Your task to perform on an android device: turn pop-ups on in chrome Image 0: 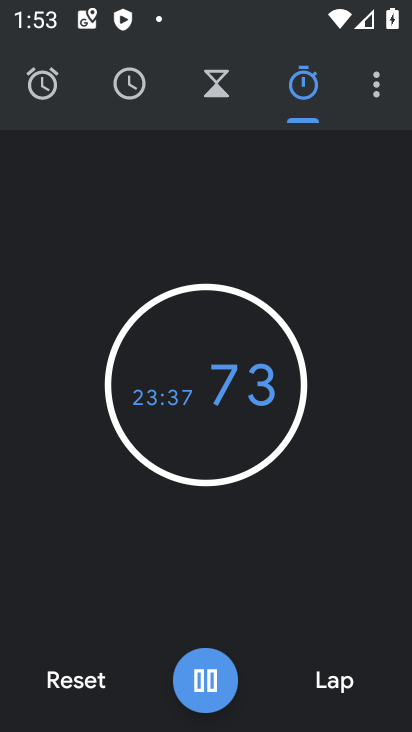
Step 0: drag from (205, 716) to (212, 260)
Your task to perform on an android device: turn pop-ups on in chrome Image 1: 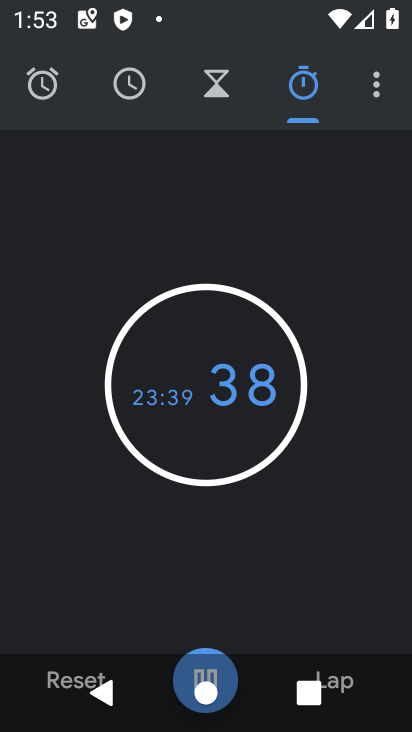
Step 1: press home button
Your task to perform on an android device: turn pop-ups on in chrome Image 2: 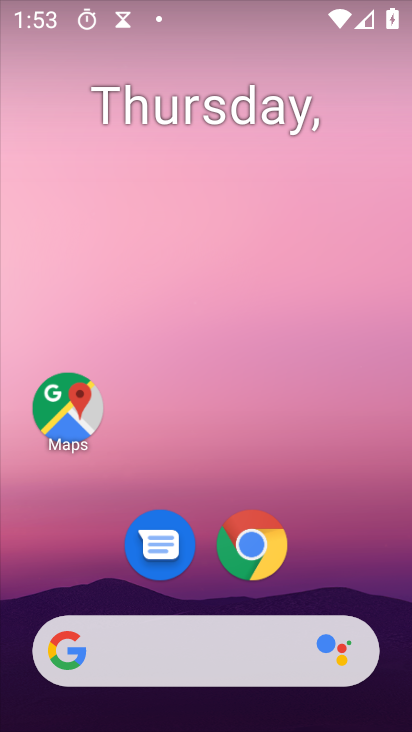
Step 2: drag from (226, 542) to (226, 206)
Your task to perform on an android device: turn pop-ups on in chrome Image 3: 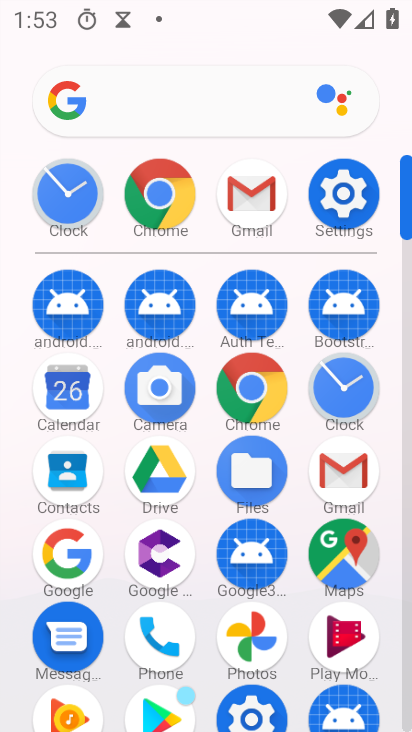
Step 3: click (248, 385)
Your task to perform on an android device: turn pop-ups on in chrome Image 4: 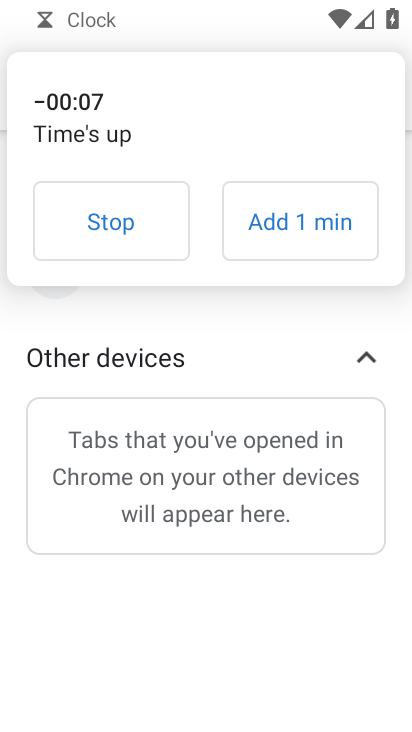
Step 4: click (124, 218)
Your task to perform on an android device: turn pop-ups on in chrome Image 5: 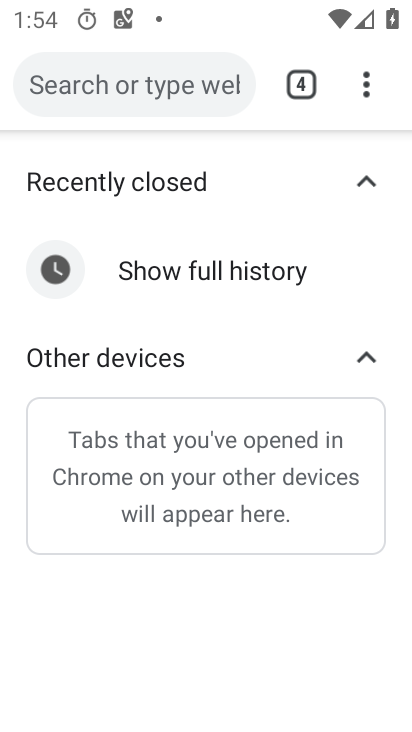
Step 5: click (370, 93)
Your task to perform on an android device: turn pop-ups on in chrome Image 6: 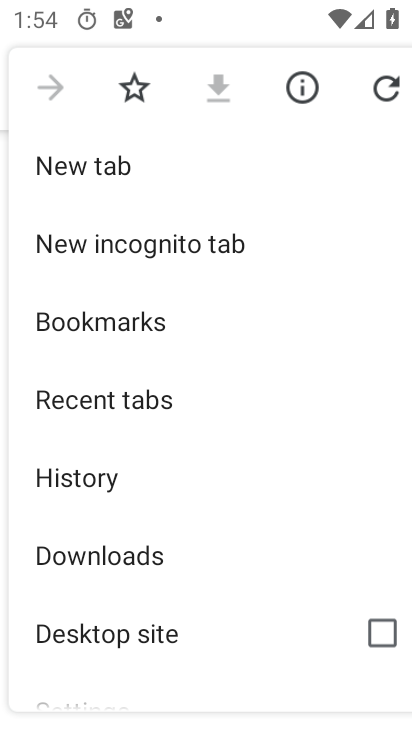
Step 6: drag from (139, 608) to (141, 183)
Your task to perform on an android device: turn pop-ups on in chrome Image 7: 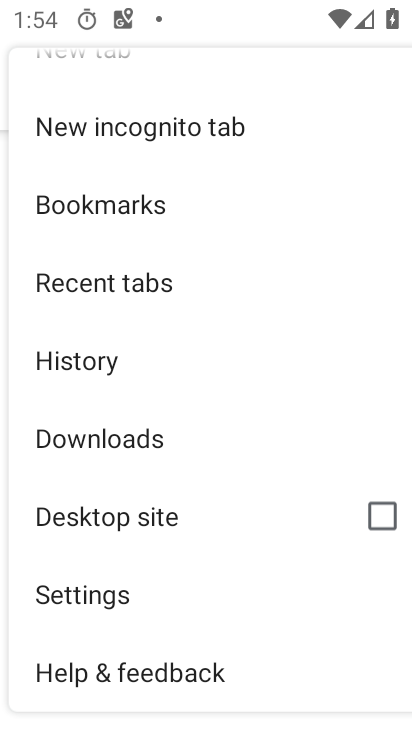
Step 7: click (97, 598)
Your task to perform on an android device: turn pop-ups on in chrome Image 8: 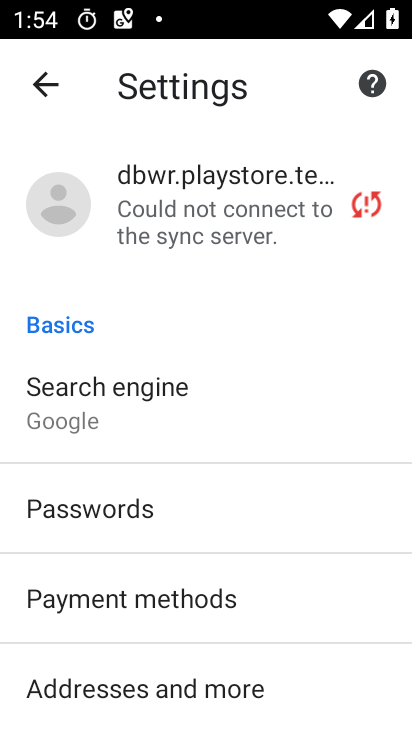
Step 8: drag from (111, 634) to (128, 274)
Your task to perform on an android device: turn pop-ups on in chrome Image 9: 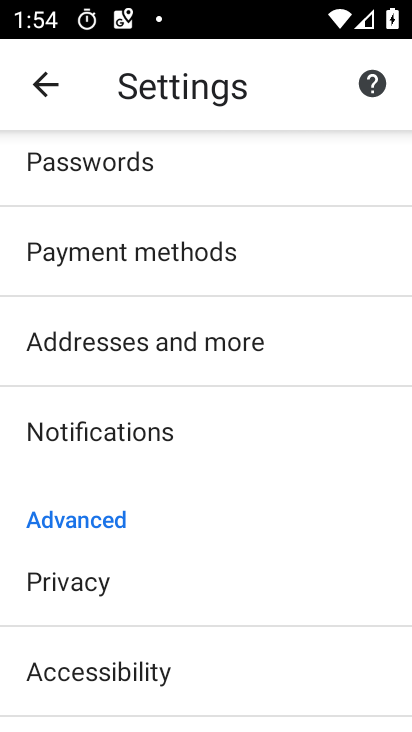
Step 9: drag from (129, 577) to (132, 289)
Your task to perform on an android device: turn pop-ups on in chrome Image 10: 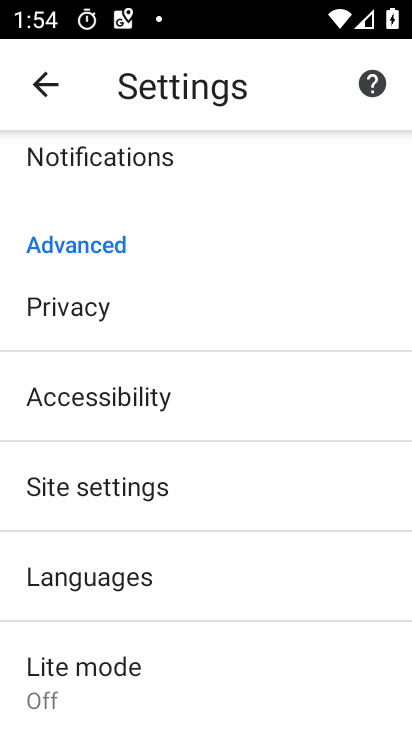
Step 10: click (89, 483)
Your task to perform on an android device: turn pop-ups on in chrome Image 11: 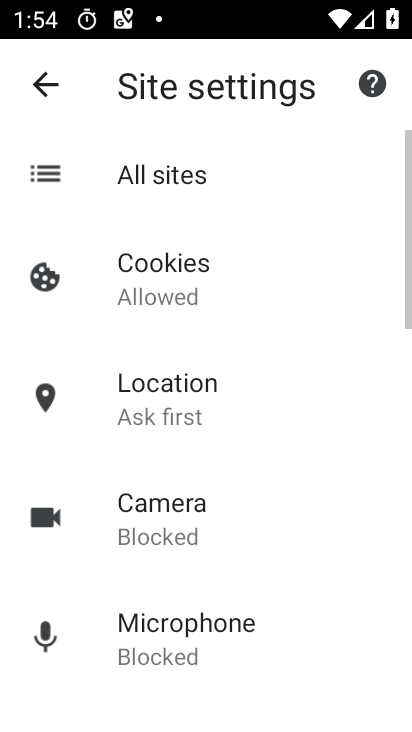
Step 11: drag from (173, 646) to (173, 217)
Your task to perform on an android device: turn pop-ups on in chrome Image 12: 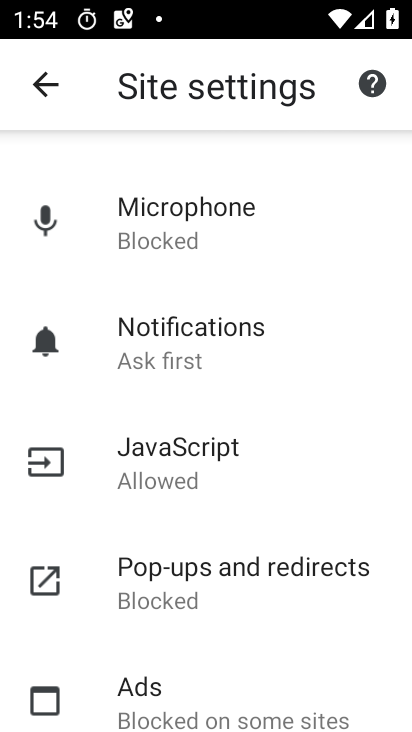
Step 12: click (172, 590)
Your task to perform on an android device: turn pop-ups on in chrome Image 13: 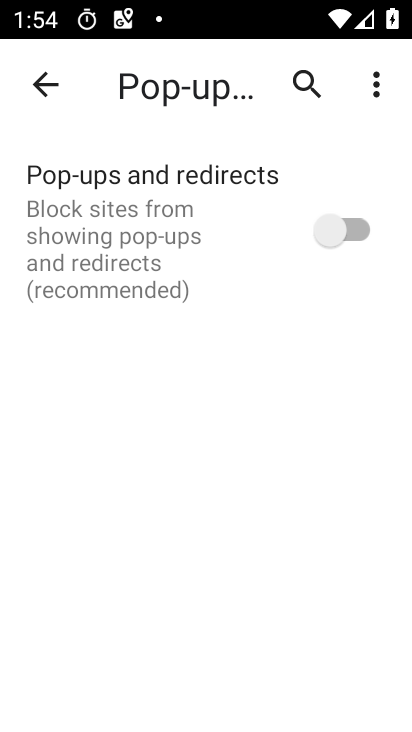
Step 13: click (360, 229)
Your task to perform on an android device: turn pop-ups on in chrome Image 14: 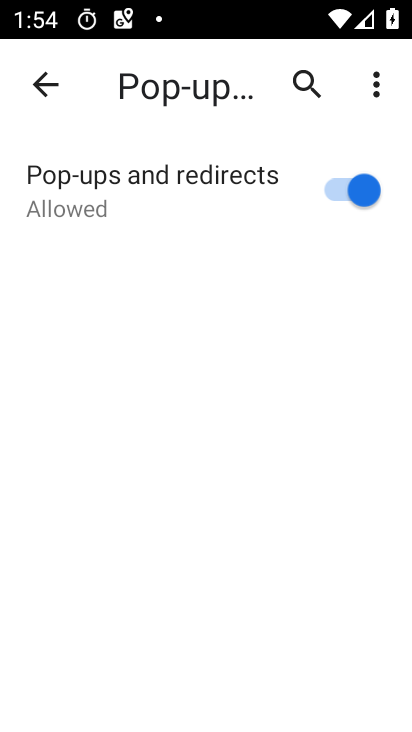
Step 14: task complete